Your task to perform on an android device: open app "DuckDuckGo Privacy Browser" (install if not already installed) Image 0: 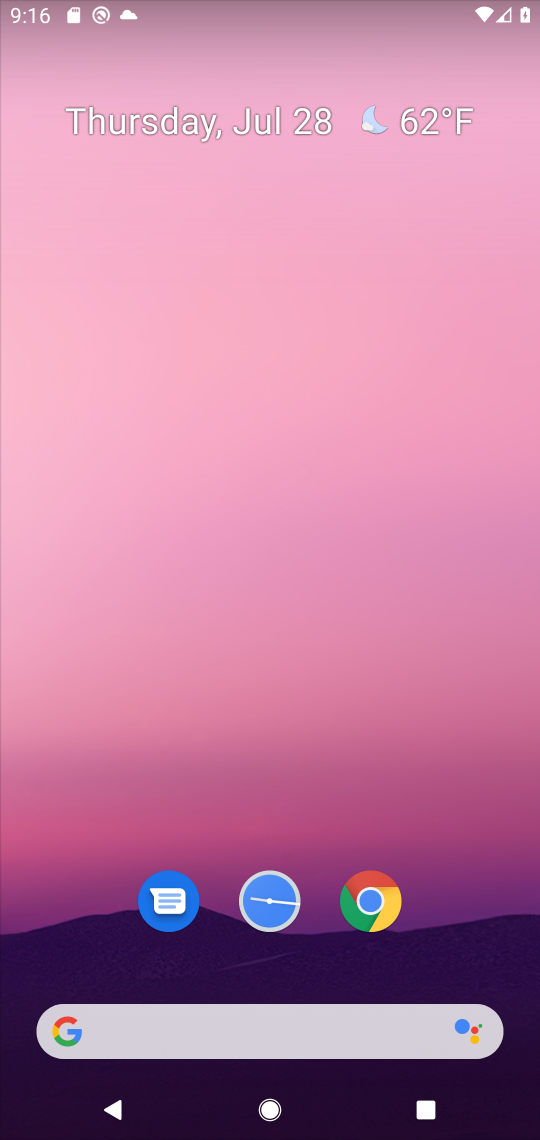
Step 0: drag from (340, 788) to (362, 34)
Your task to perform on an android device: open app "DuckDuckGo Privacy Browser" (install if not already installed) Image 1: 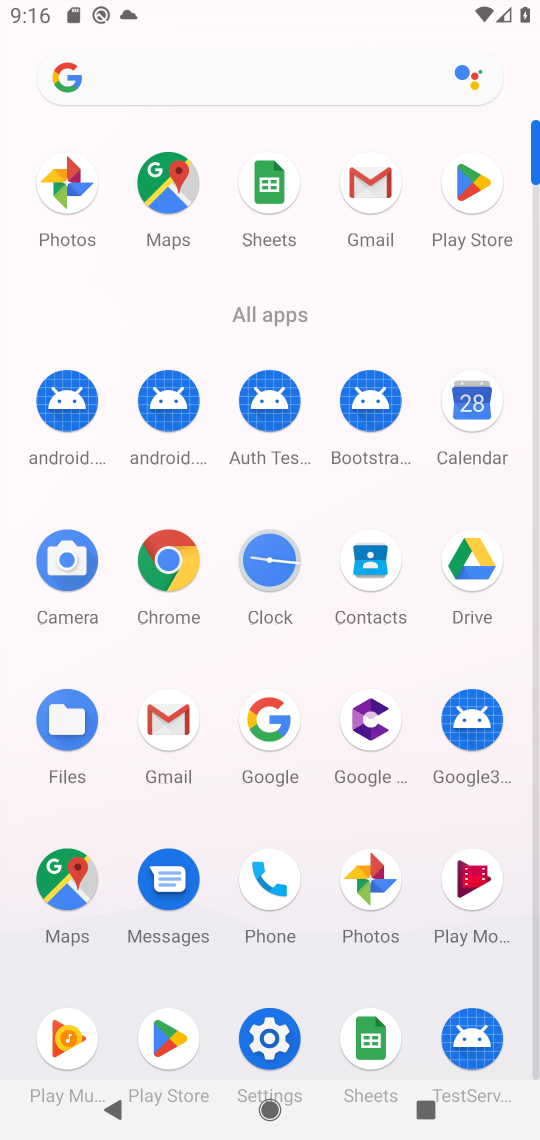
Step 1: click (468, 193)
Your task to perform on an android device: open app "DuckDuckGo Privacy Browser" (install if not already installed) Image 2: 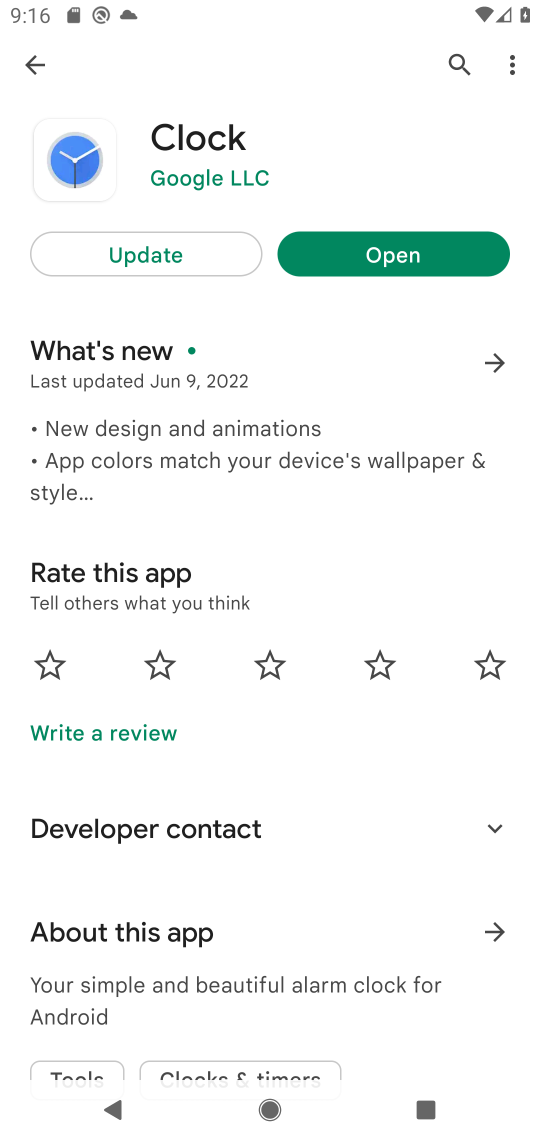
Step 2: click (35, 67)
Your task to perform on an android device: open app "DuckDuckGo Privacy Browser" (install if not already installed) Image 3: 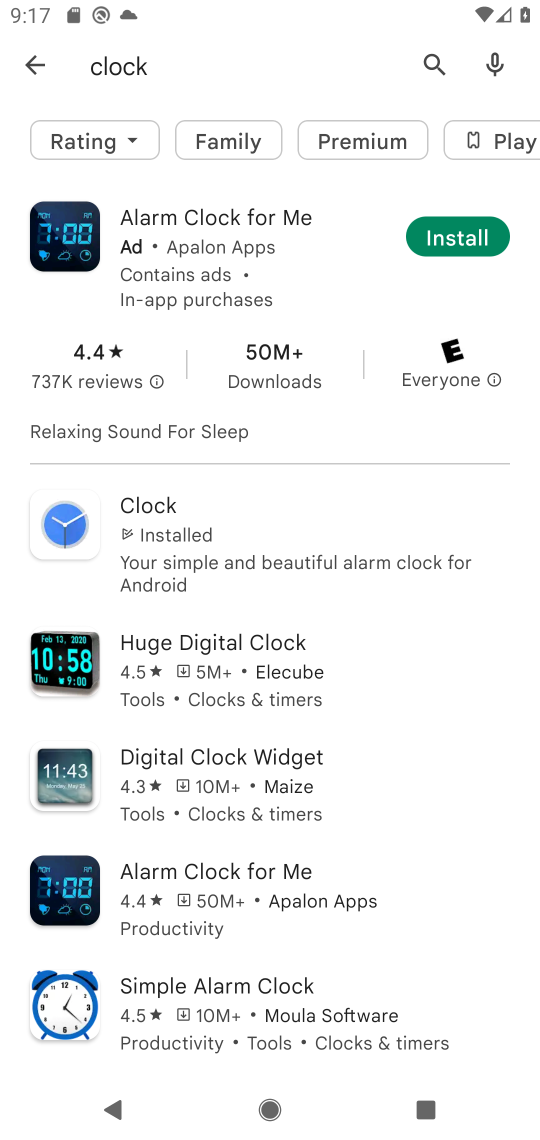
Step 3: click (210, 63)
Your task to perform on an android device: open app "DuckDuckGo Privacy Browser" (install if not already installed) Image 4: 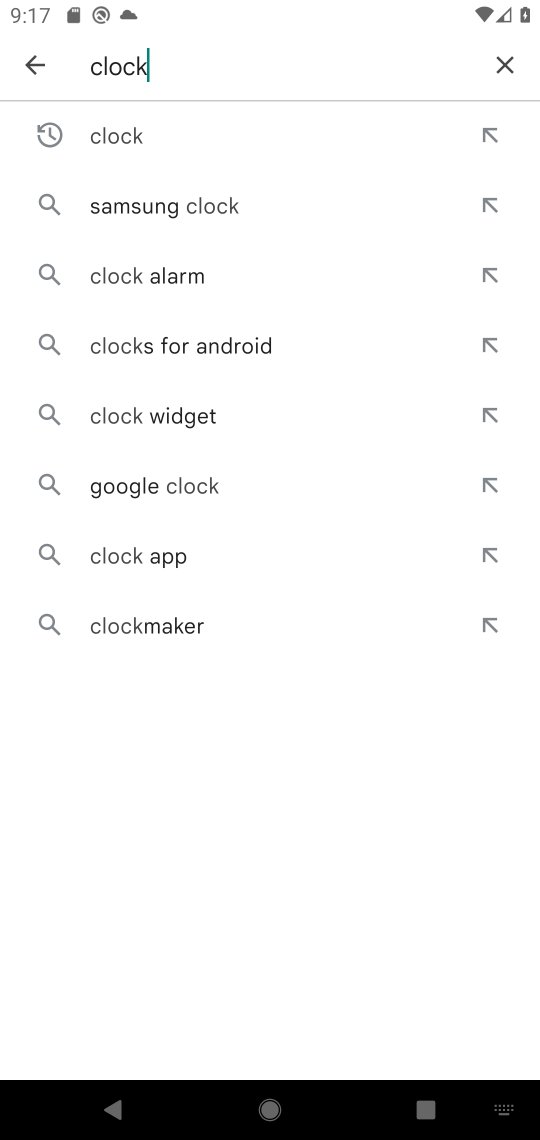
Step 4: click (501, 59)
Your task to perform on an android device: open app "DuckDuckGo Privacy Browser" (install if not already installed) Image 5: 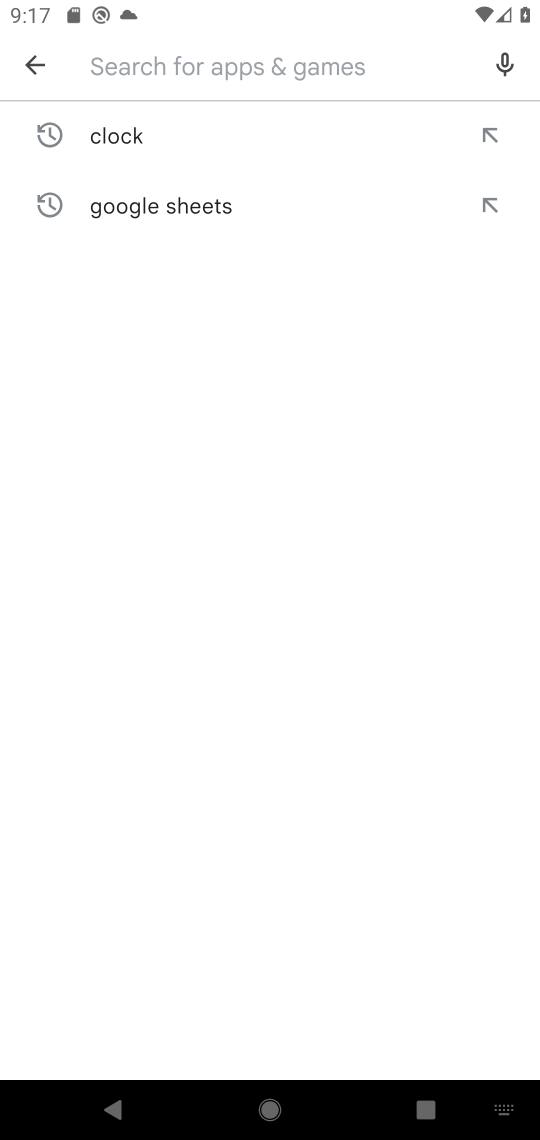
Step 5: type "duckduckgo"
Your task to perform on an android device: open app "DuckDuckGo Privacy Browser" (install if not already installed) Image 6: 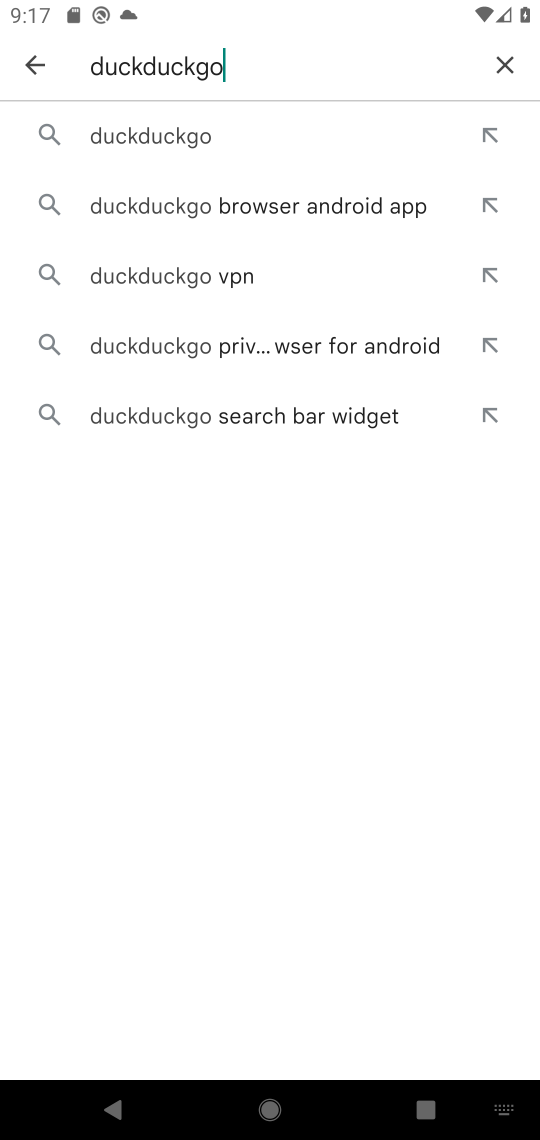
Step 6: click (288, 347)
Your task to perform on an android device: open app "DuckDuckGo Privacy Browser" (install if not already installed) Image 7: 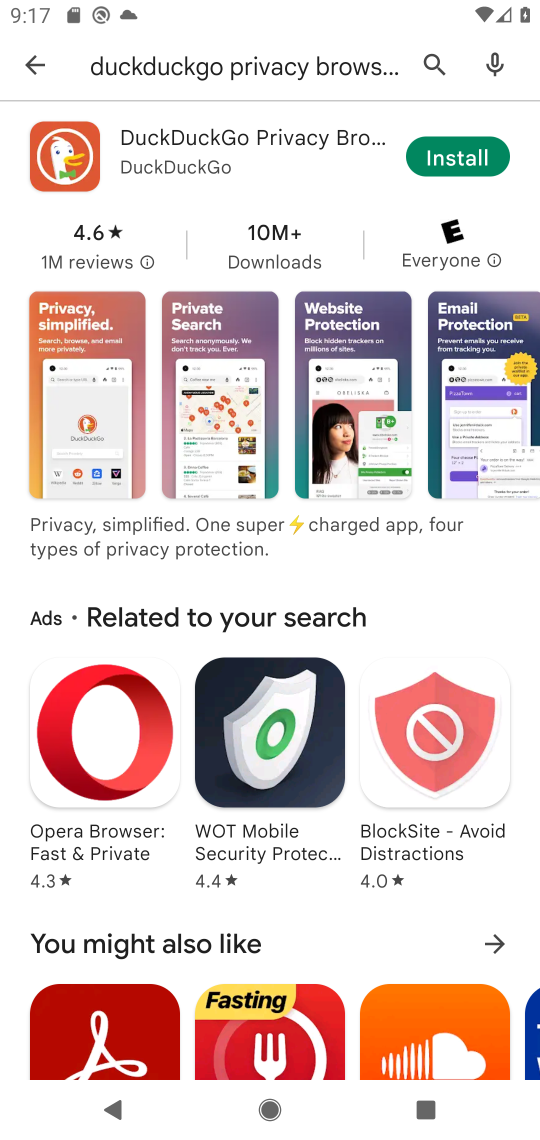
Step 7: click (463, 156)
Your task to perform on an android device: open app "DuckDuckGo Privacy Browser" (install if not already installed) Image 8: 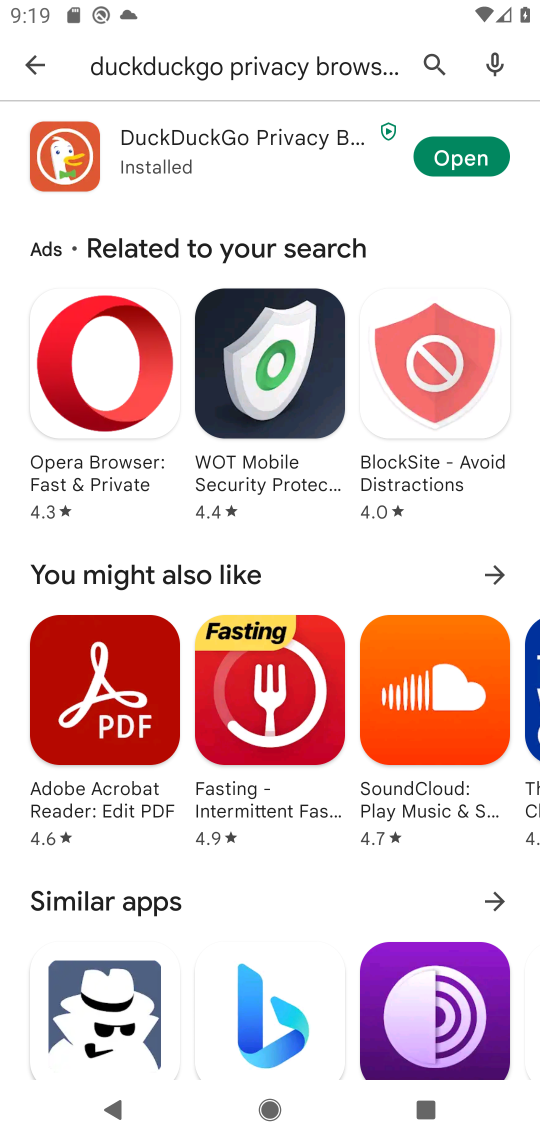
Step 8: click (480, 161)
Your task to perform on an android device: open app "DuckDuckGo Privacy Browser" (install if not already installed) Image 9: 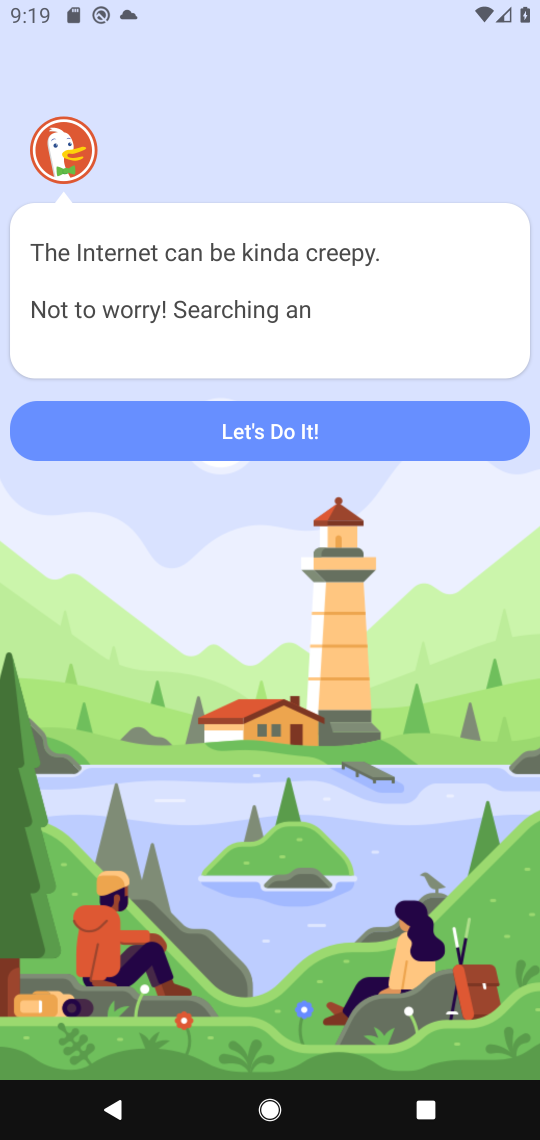
Step 9: task complete